Your task to perform on an android device: Open the stopwatch Image 0: 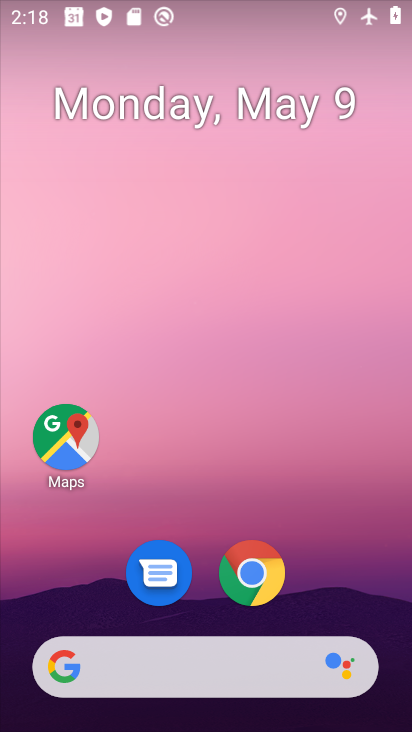
Step 0: click (154, 61)
Your task to perform on an android device: Open the stopwatch Image 1: 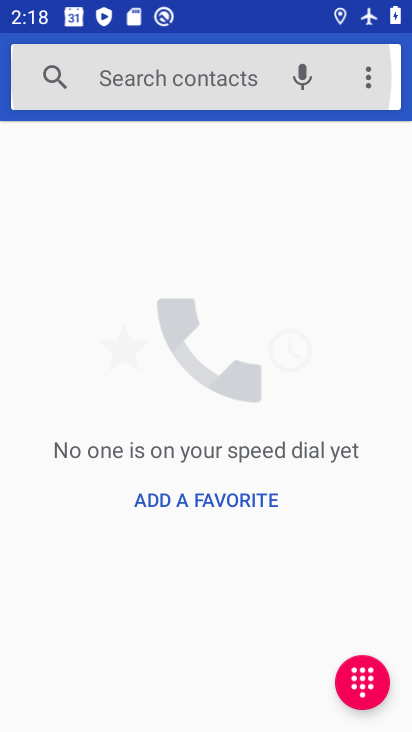
Step 1: drag from (357, 584) to (155, 126)
Your task to perform on an android device: Open the stopwatch Image 2: 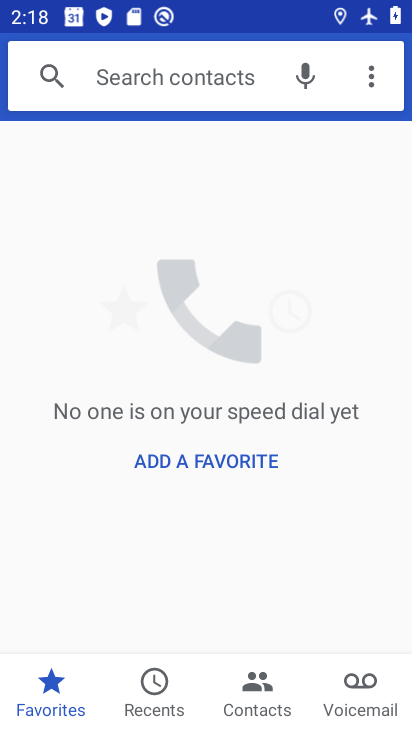
Step 2: press home button
Your task to perform on an android device: Open the stopwatch Image 3: 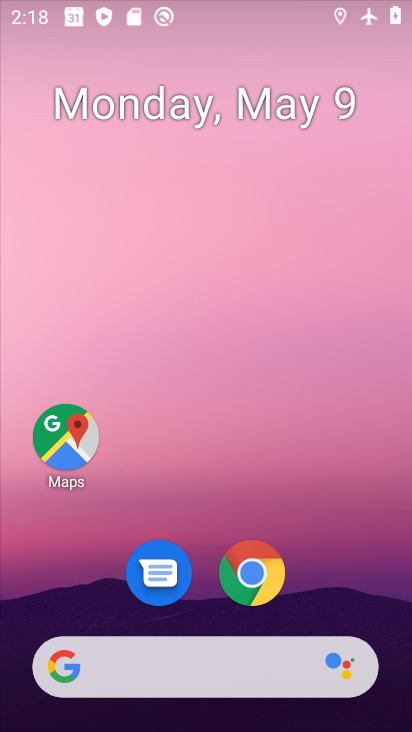
Step 3: drag from (283, 563) to (104, 0)
Your task to perform on an android device: Open the stopwatch Image 4: 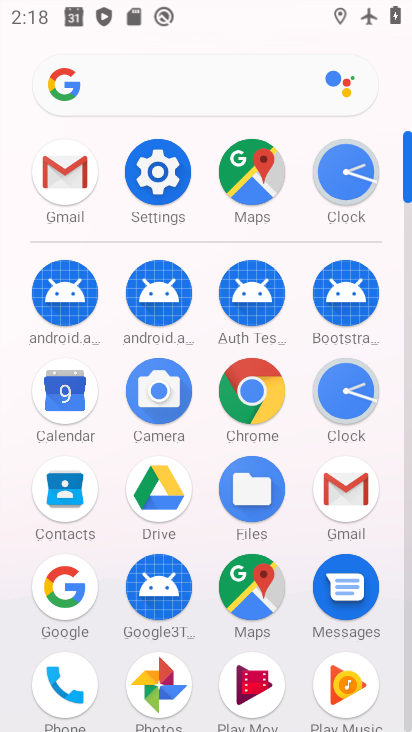
Step 4: click (350, 395)
Your task to perform on an android device: Open the stopwatch Image 5: 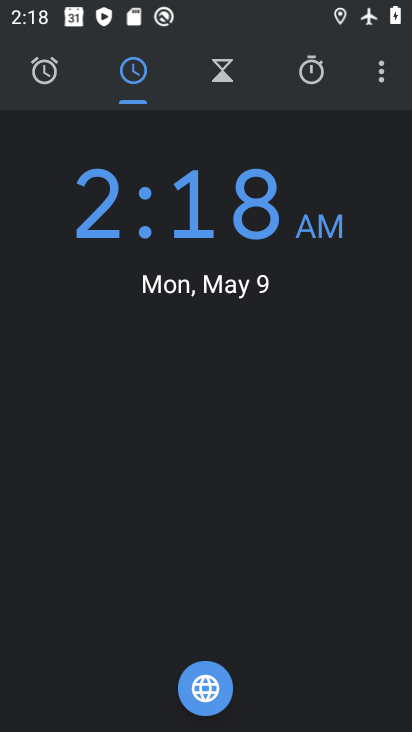
Step 5: click (304, 81)
Your task to perform on an android device: Open the stopwatch Image 6: 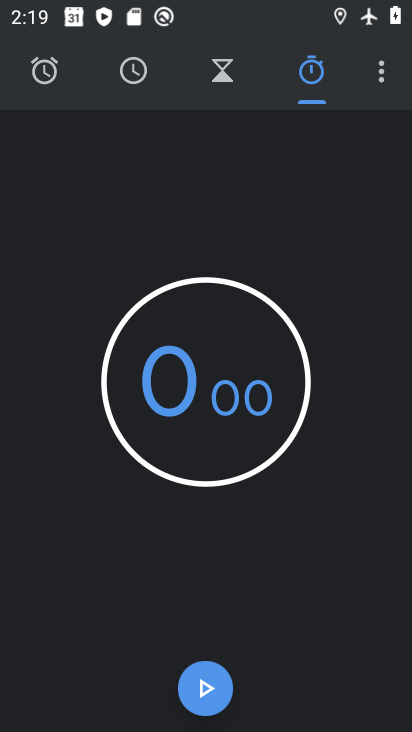
Step 6: click (199, 687)
Your task to perform on an android device: Open the stopwatch Image 7: 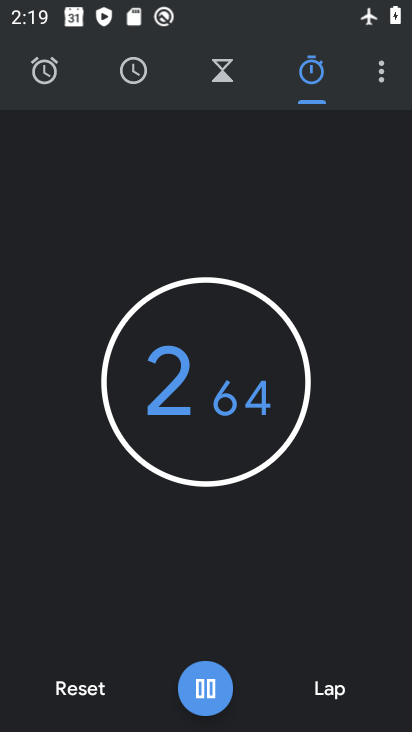
Step 7: click (210, 691)
Your task to perform on an android device: Open the stopwatch Image 8: 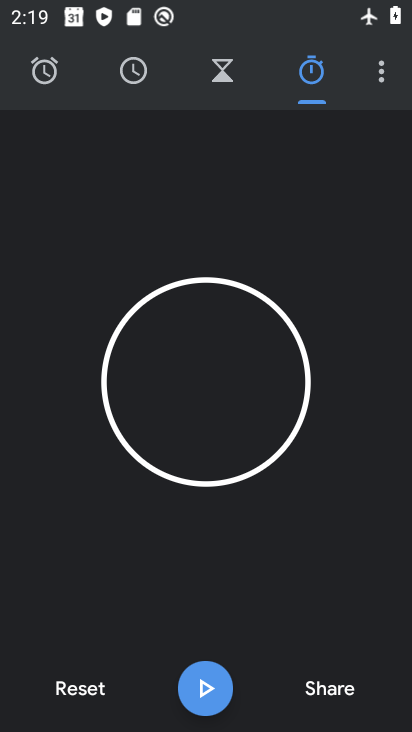
Step 8: task complete